Your task to perform on an android device: Go to sound settings Image 0: 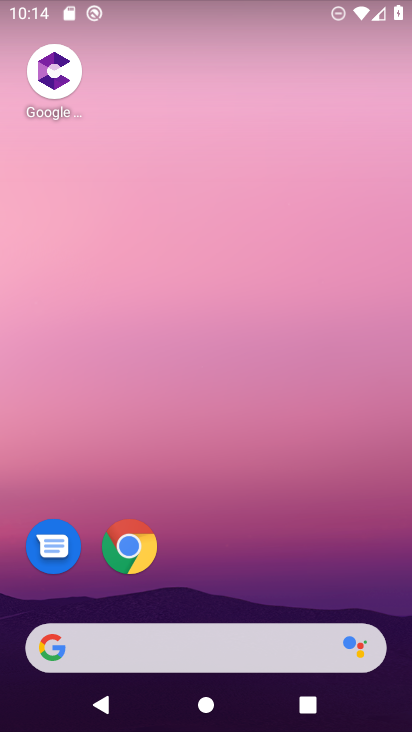
Step 0: drag from (306, 551) to (240, 26)
Your task to perform on an android device: Go to sound settings Image 1: 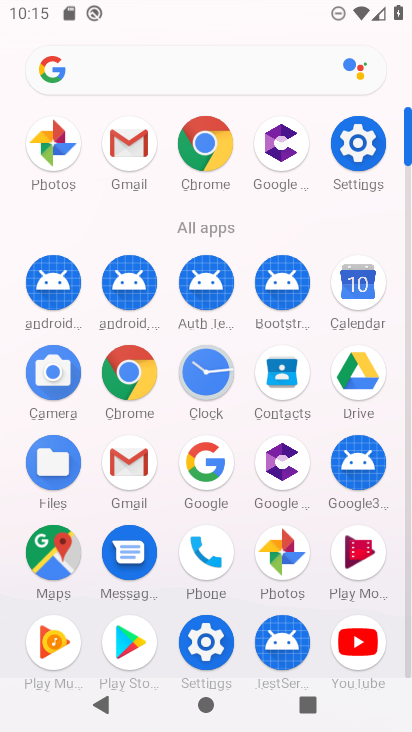
Step 1: click (357, 129)
Your task to perform on an android device: Go to sound settings Image 2: 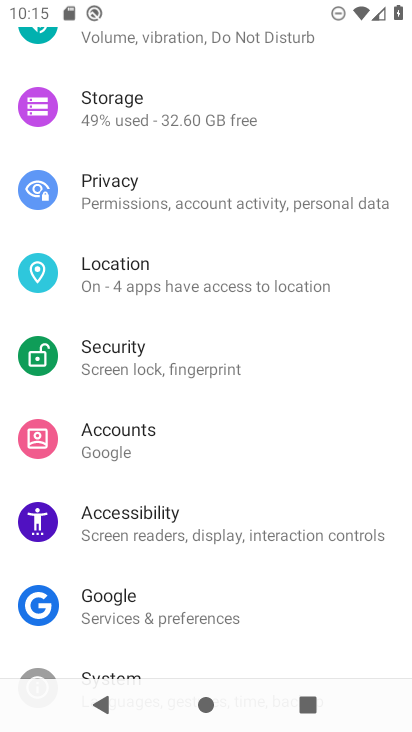
Step 2: drag from (221, 114) to (278, 544)
Your task to perform on an android device: Go to sound settings Image 3: 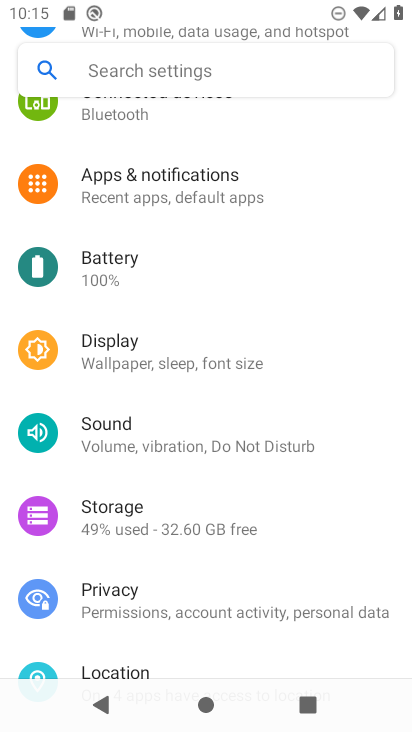
Step 3: click (165, 424)
Your task to perform on an android device: Go to sound settings Image 4: 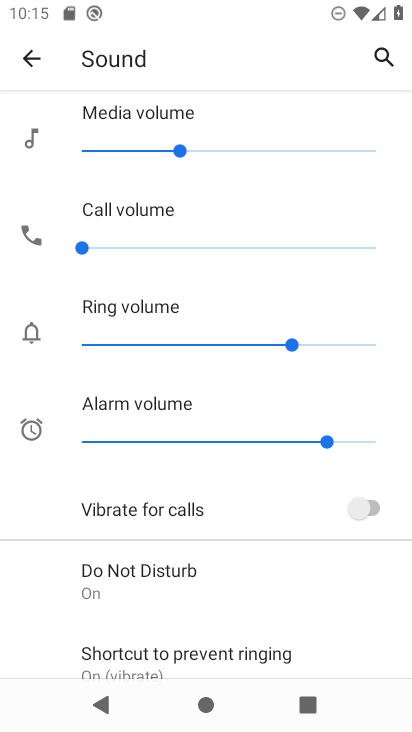
Step 4: task complete